Your task to perform on an android device: Go to accessibility settings Image 0: 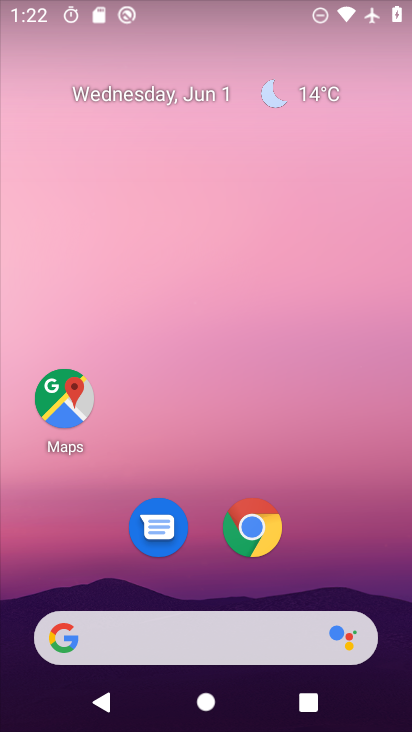
Step 0: press home button
Your task to perform on an android device: Go to accessibility settings Image 1: 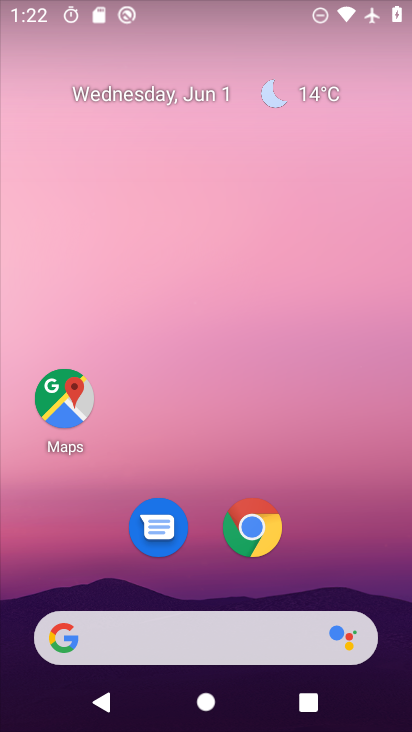
Step 1: drag from (231, 651) to (292, 106)
Your task to perform on an android device: Go to accessibility settings Image 2: 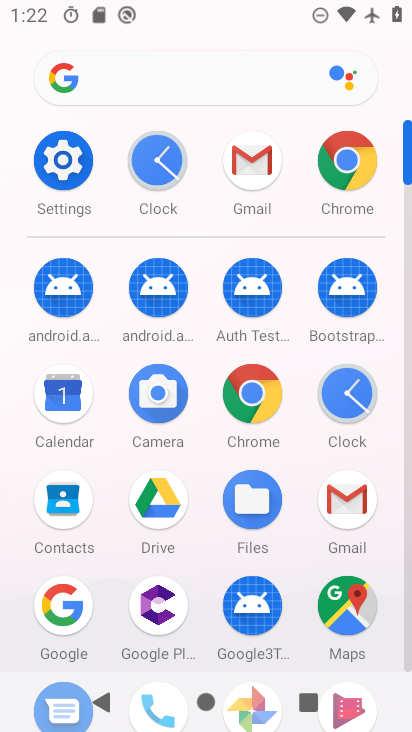
Step 2: click (54, 152)
Your task to perform on an android device: Go to accessibility settings Image 3: 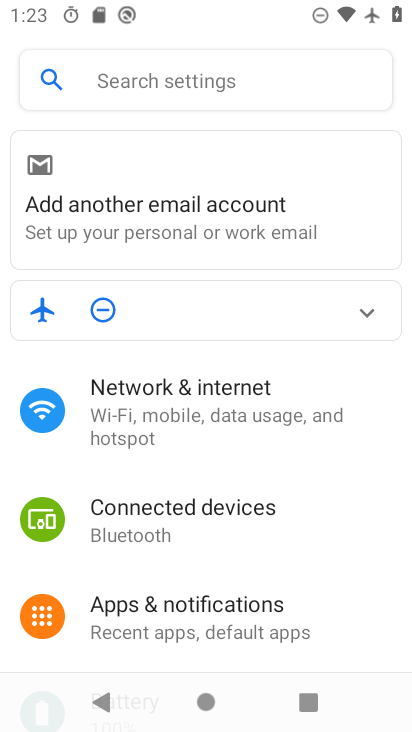
Step 3: drag from (403, 9) to (409, 83)
Your task to perform on an android device: Go to accessibility settings Image 4: 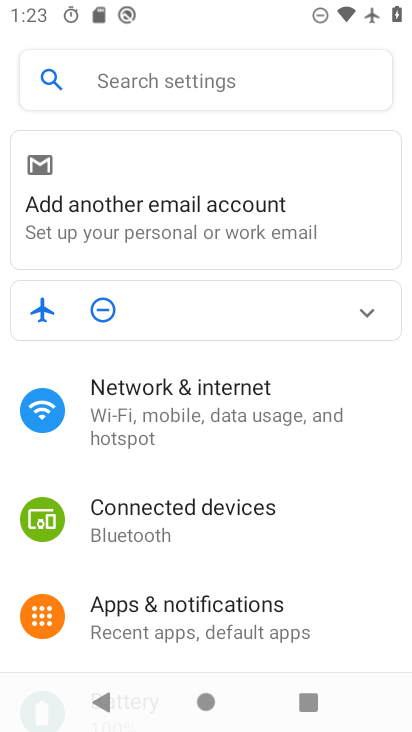
Step 4: drag from (195, 557) to (204, 184)
Your task to perform on an android device: Go to accessibility settings Image 5: 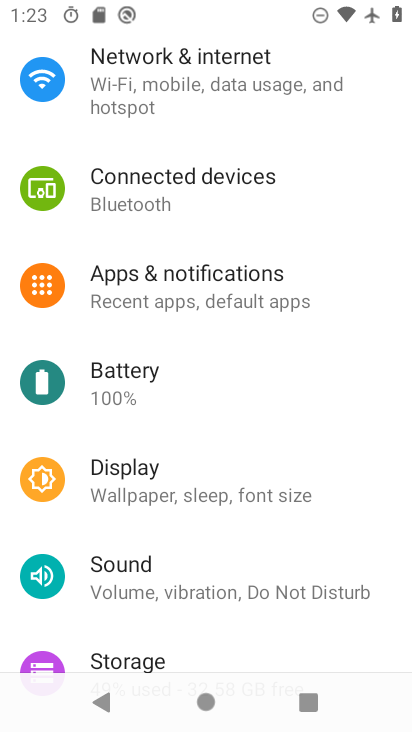
Step 5: drag from (219, 539) to (240, 67)
Your task to perform on an android device: Go to accessibility settings Image 6: 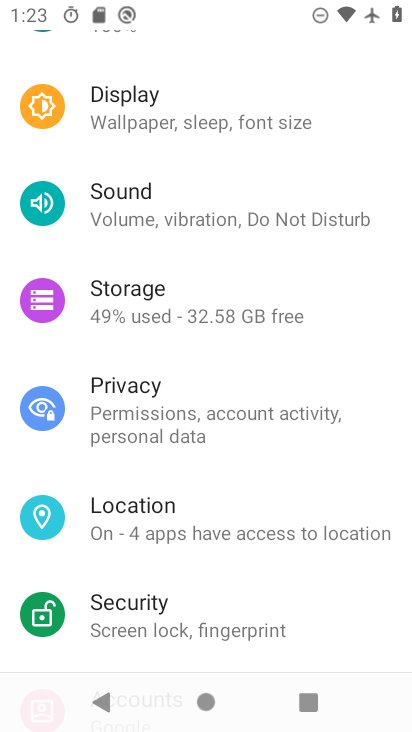
Step 6: drag from (267, 333) to (276, 135)
Your task to perform on an android device: Go to accessibility settings Image 7: 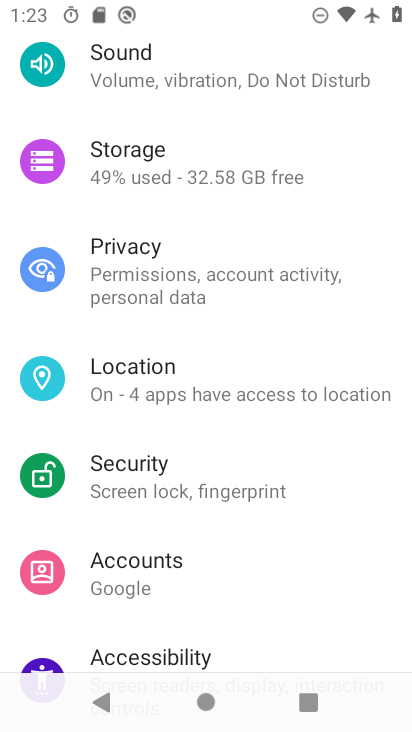
Step 7: drag from (220, 600) to (250, 78)
Your task to perform on an android device: Go to accessibility settings Image 8: 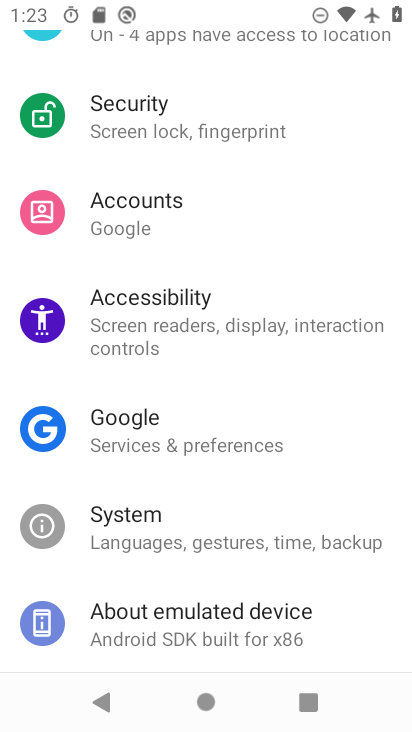
Step 8: drag from (208, 442) to (243, 153)
Your task to perform on an android device: Go to accessibility settings Image 9: 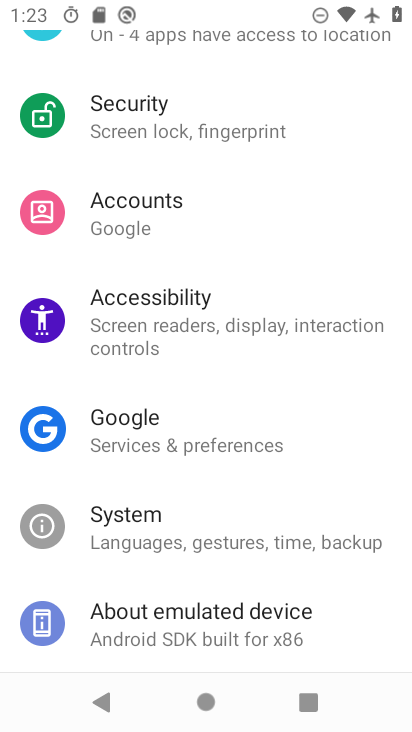
Step 9: click (229, 330)
Your task to perform on an android device: Go to accessibility settings Image 10: 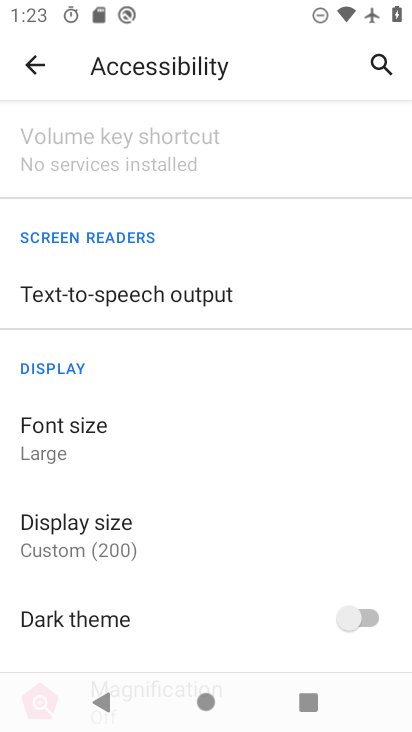
Step 10: task complete